Your task to perform on an android device: Open Google Maps and go to "Timeline" Image 0: 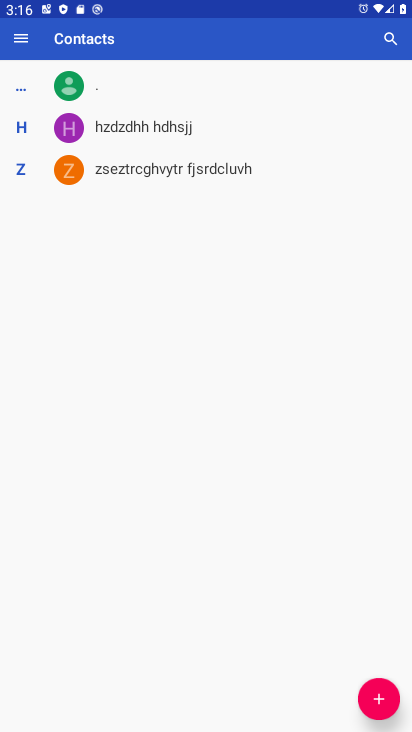
Step 0: press home button
Your task to perform on an android device: Open Google Maps and go to "Timeline" Image 1: 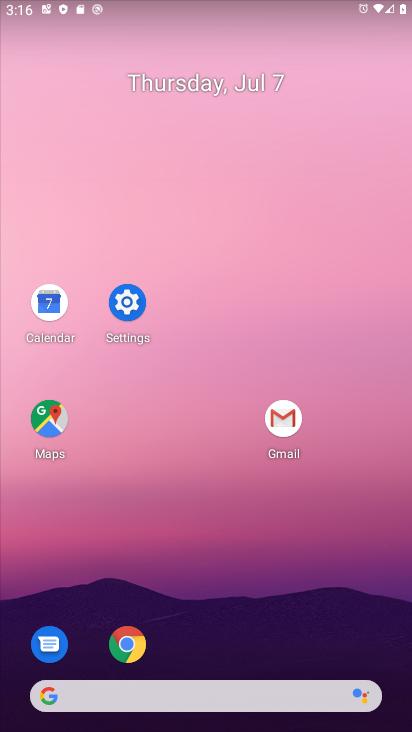
Step 1: click (55, 406)
Your task to perform on an android device: Open Google Maps and go to "Timeline" Image 2: 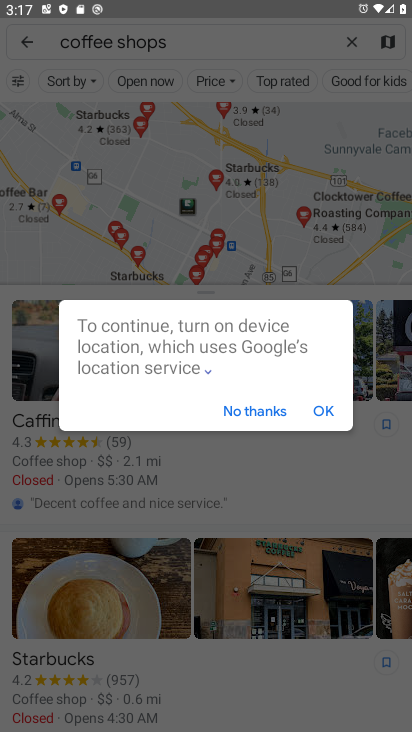
Step 2: click (329, 415)
Your task to perform on an android device: Open Google Maps and go to "Timeline" Image 3: 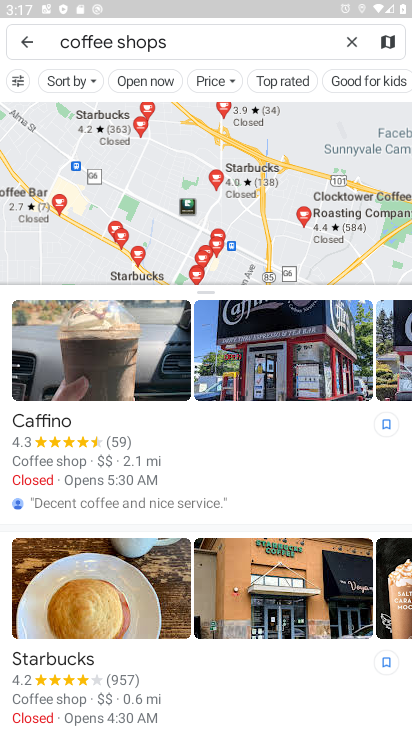
Step 3: click (24, 37)
Your task to perform on an android device: Open Google Maps and go to "Timeline" Image 4: 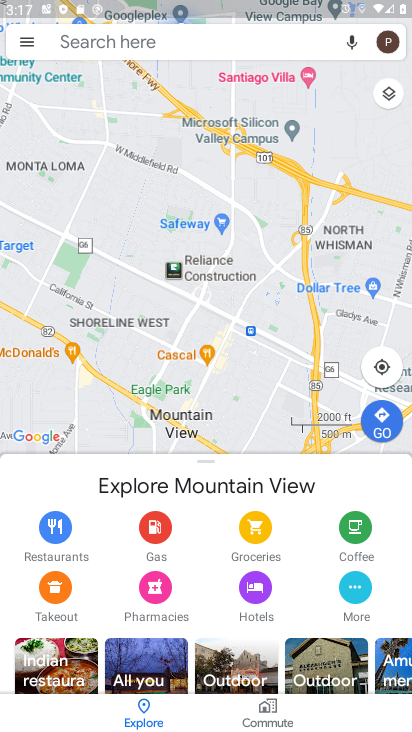
Step 4: click (30, 38)
Your task to perform on an android device: Open Google Maps and go to "Timeline" Image 5: 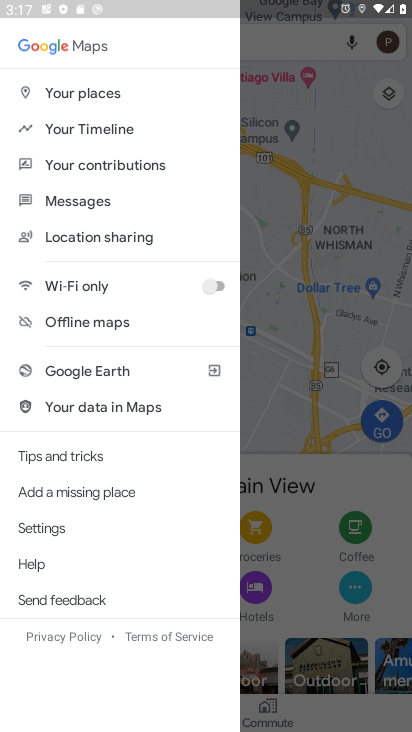
Step 5: click (76, 124)
Your task to perform on an android device: Open Google Maps and go to "Timeline" Image 6: 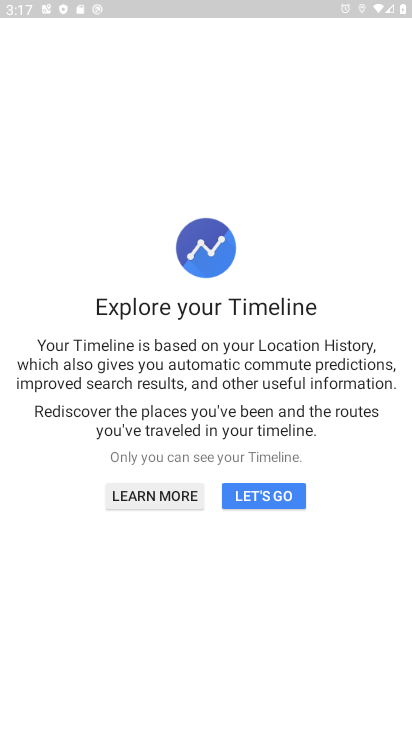
Step 6: click (249, 498)
Your task to perform on an android device: Open Google Maps and go to "Timeline" Image 7: 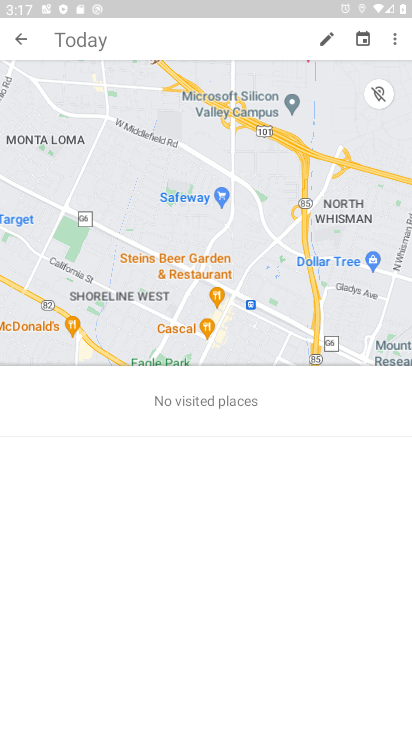
Step 7: click (396, 41)
Your task to perform on an android device: Open Google Maps and go to "Timeline" Image 8: 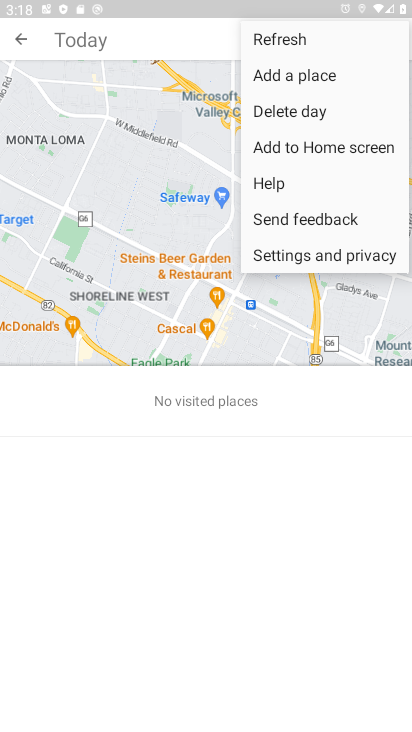
Step 8: click (182, 183)
Your task to perform on an android device: Open Google Maps and go to "Timeline" Image 9: 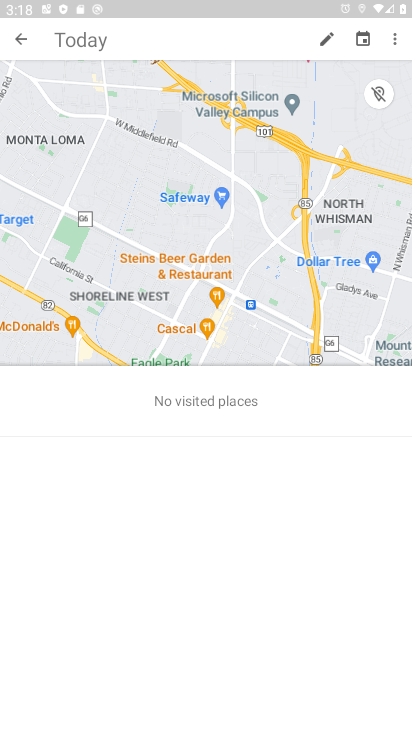
Step 9: task complete